Your task to perform on an android device: toggle show notifications on the lock screen Image 0: 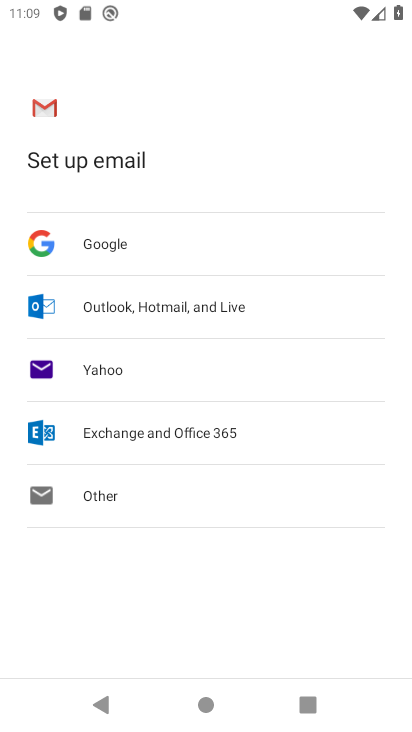
Step 0: press home button
Your task to perform on an android device: toggle show notifications on the lock screen Image 1: 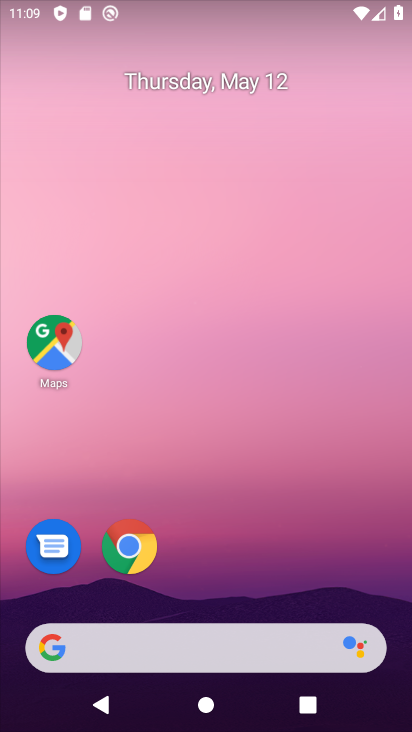
Step 1: drag from (228, 698) to (228, 47)
Your task to perform on an android device: toggle show notifications on the lock screen Image 2: 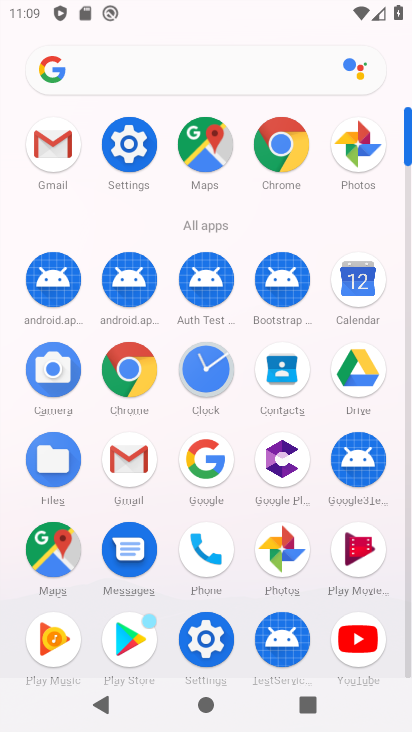
Step 2: click (130, 150)
Your task to perform on an android device: toggle show notifications on the lock screen Image 3: 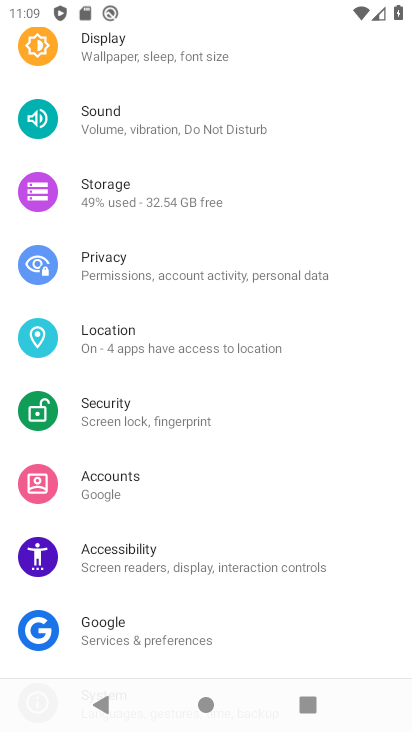
Step 3: drag from (187, 205) to (179, 545)
Your task to perform on an android device: toggle show notifications on the lock screen Image 4: 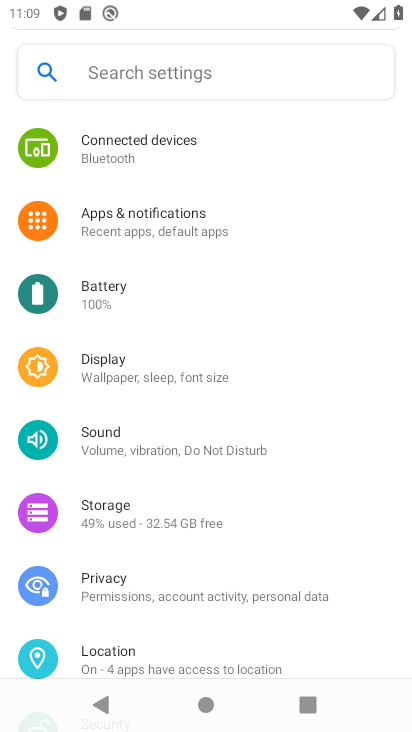
Step 4: click (185, 219)
Your task to perform on an android device: toggle show notifications on the lock screen Image 5: 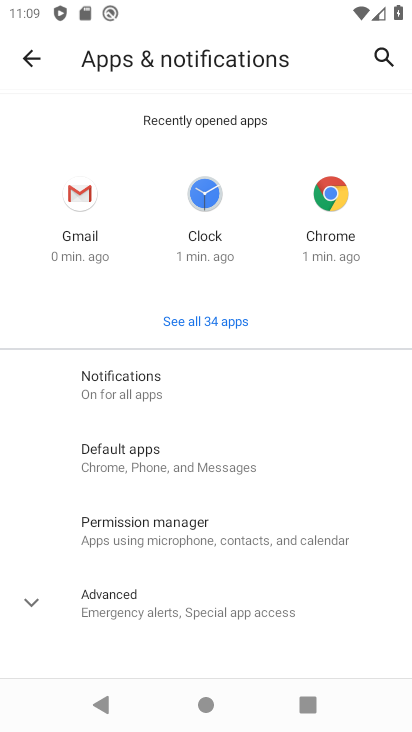
Step 5: drag from (132, 628) to (151, 400)
Your task to perform on an android device: toggle show notifications on the lock screen Image 6: 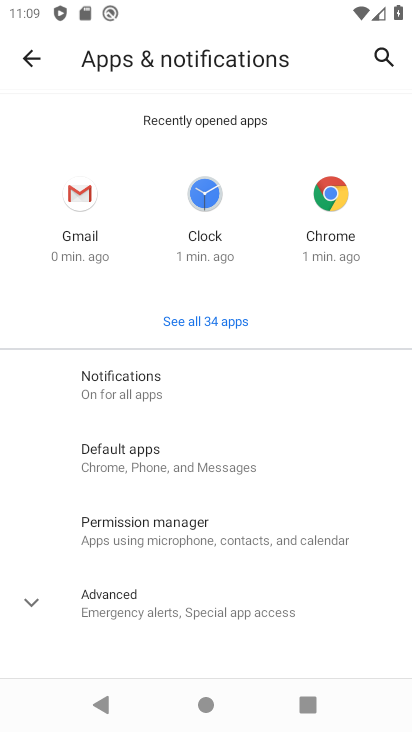
Step 6: click (130, 378)
Your task to perform on an android device: toggle show notifications on the lock screen Image 7: 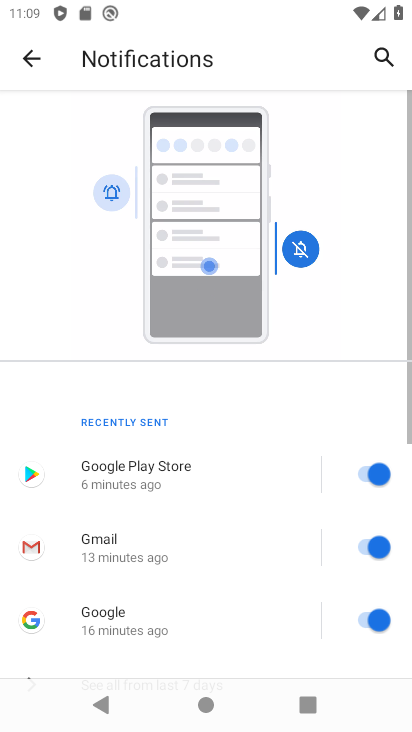
Step 7: drag from (209, 654) to (215, 283)
Your task to perform on an android device: toggle show notifications on the lock screen Image 8: 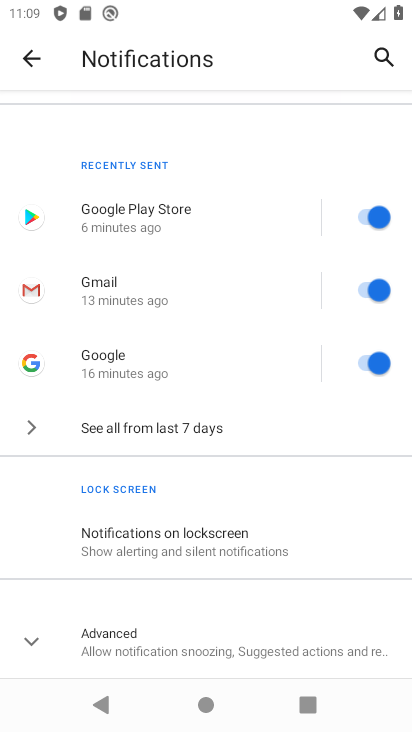
Step 8: click (187, 540)
Your task to perform on an android device: toggle show notifications on the lock screen Image 9: 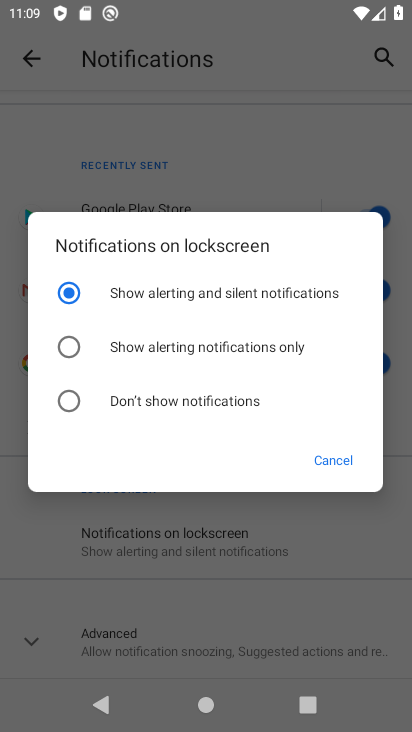
Step 9: click (329, 457)
Your task to perform on an android device: toggle show notifications on the lock screen Image 10: 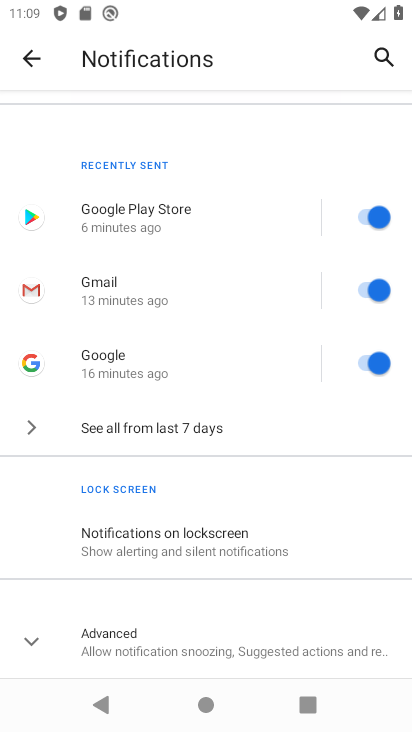
Step 10: task complete